Your task to perform on an android device: change timer sound Image 0: 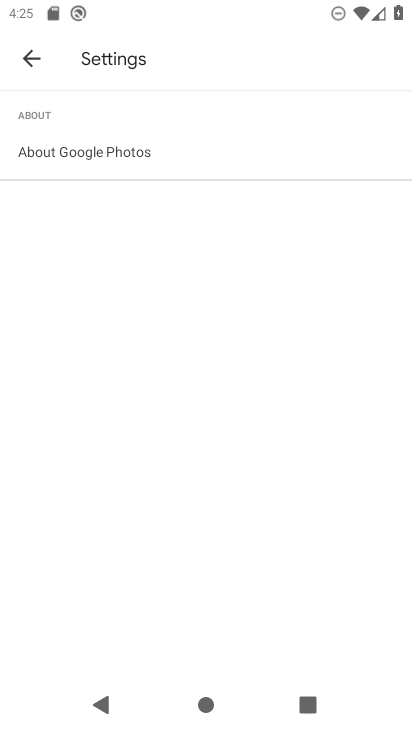
Step 0: press home button
Your task to perform on an android device: change timer sound Image 1: 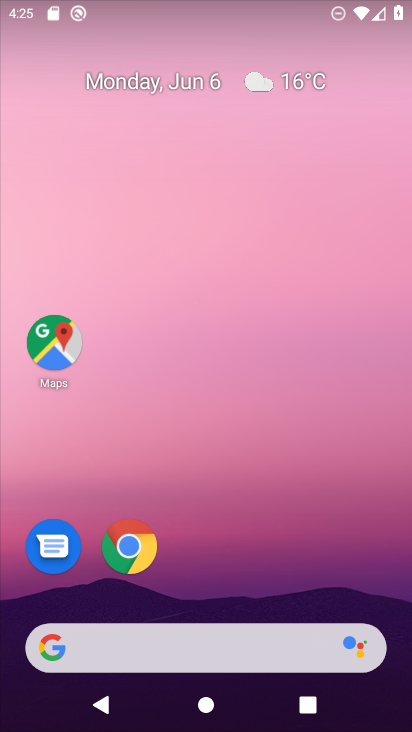
Step 1: drag from (252, 620) to (222, 0)
Your task to perform on an android device: change timer sound Image 2: 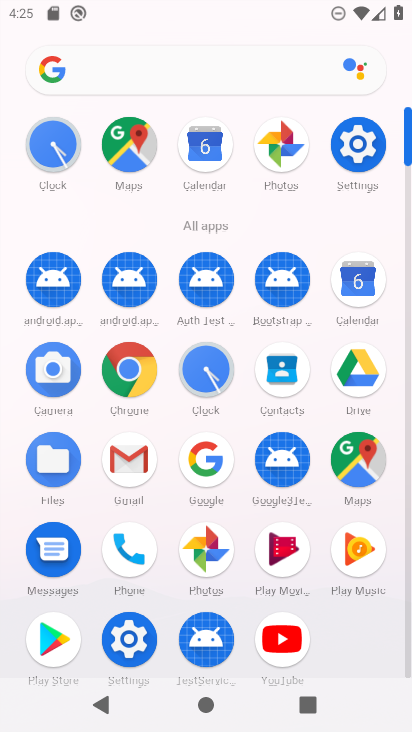
Step 2: click (338, 140)
Your task to perform on an android device: change timer sound Image 3: 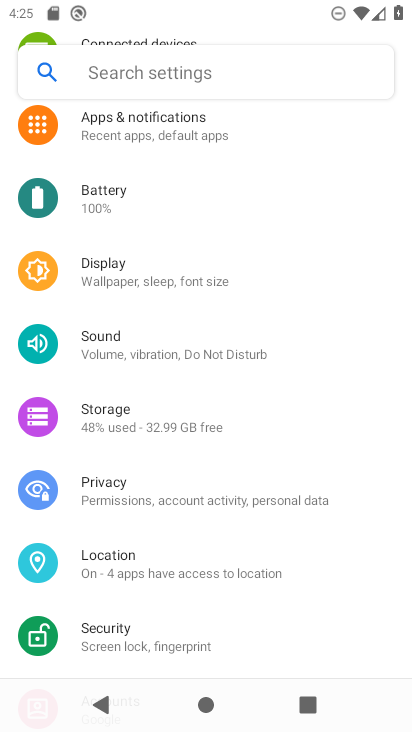
Step 3: press home button
Your task to perform on an android device: change timer sound Image 4: 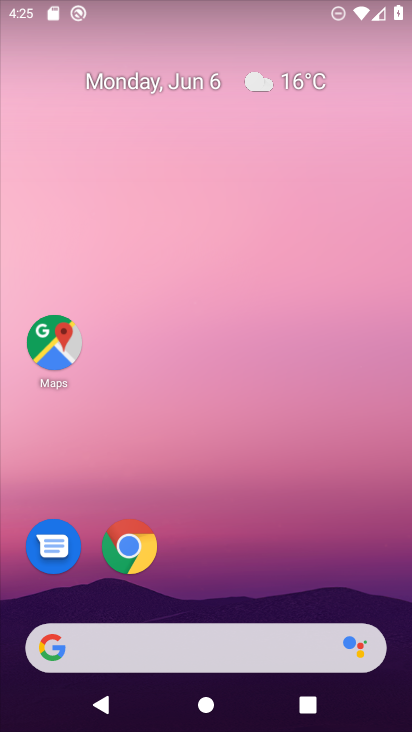
Step 4: drag from (242, 622) to (222, 0)
Your task to perform on an android device: change timer sound Image 5: 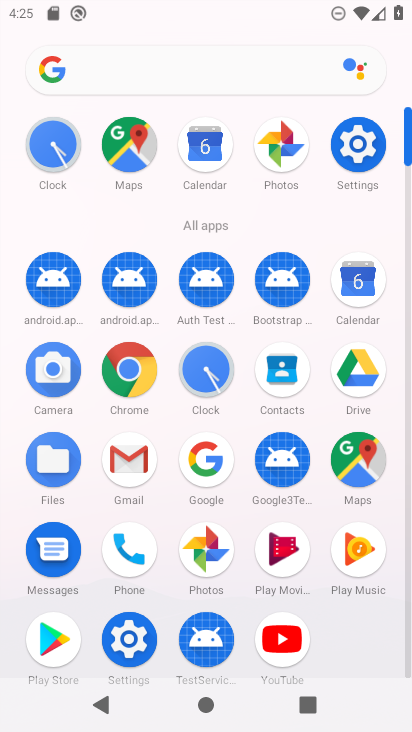
Step 5: click (204, 380)
Your task to perform on an android device: change timer sound Image 6: 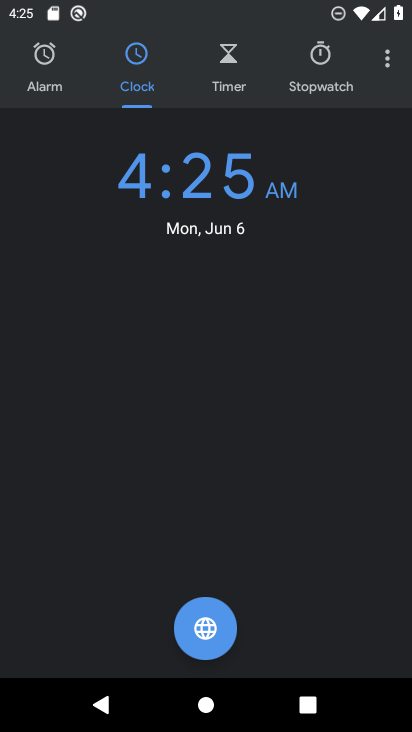
Step 6: click (381, 64)
Your task to perform on an android device: change timer sound Image 7: 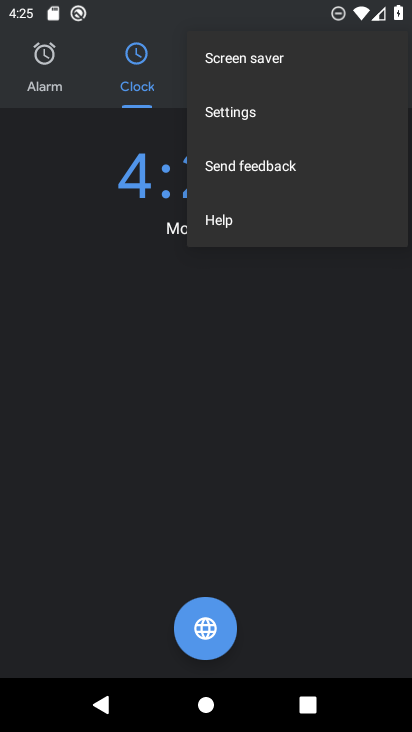
Step 7: click (268, 103)
Your task to perform on an android device: change timer sound Image 8: 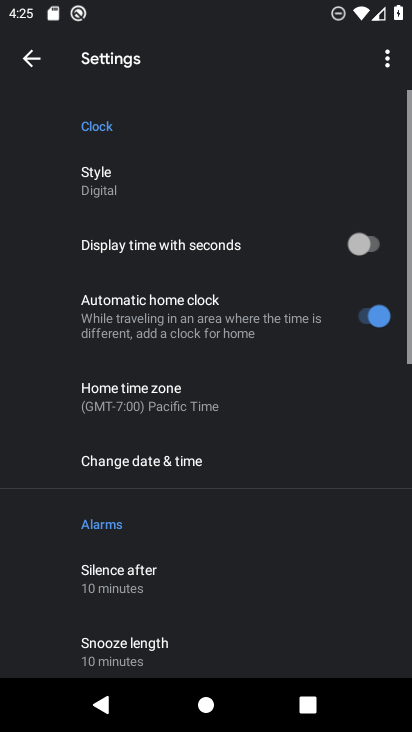
Step 8: drag from (228, 551) to (223, 204)
Your task to perform on an android device: change timer sound Image 9: 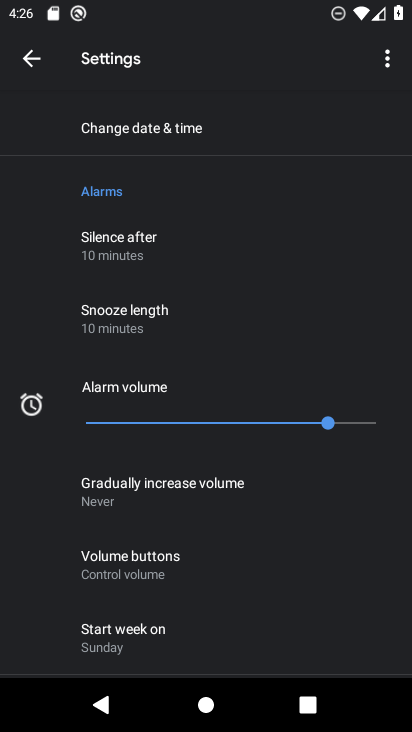
Step 9: drag from (242, 567) to (205, 120)
Your task to perform on an android device: change timer sound Image 10: 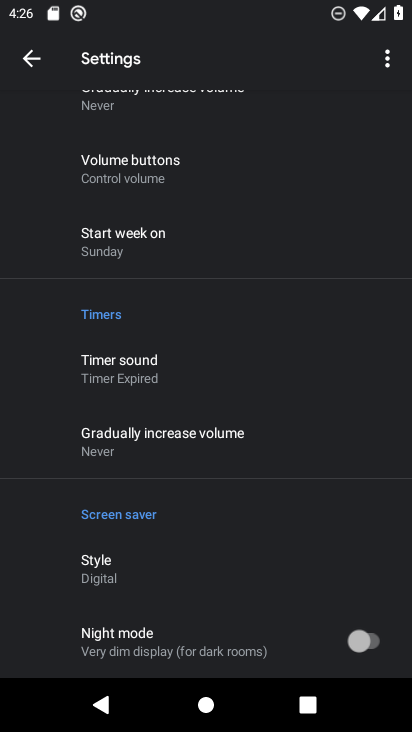
Step 10: click (167, 376)
Your task to perform on an android device: change timer sound Image 11: 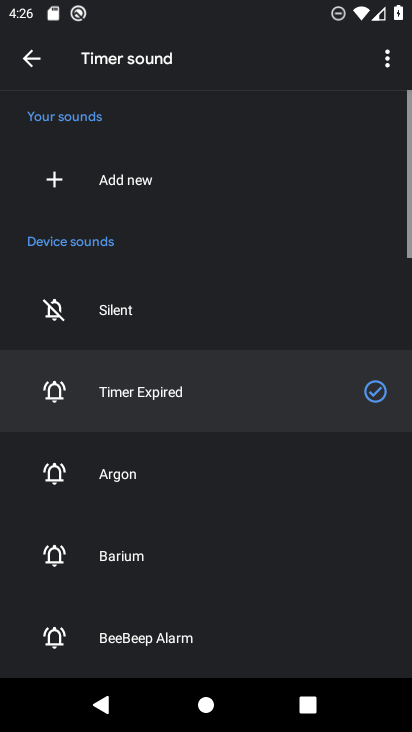
Step 11: click (188, 488)
Your task to perform on an android device: change timer sound Image 12: 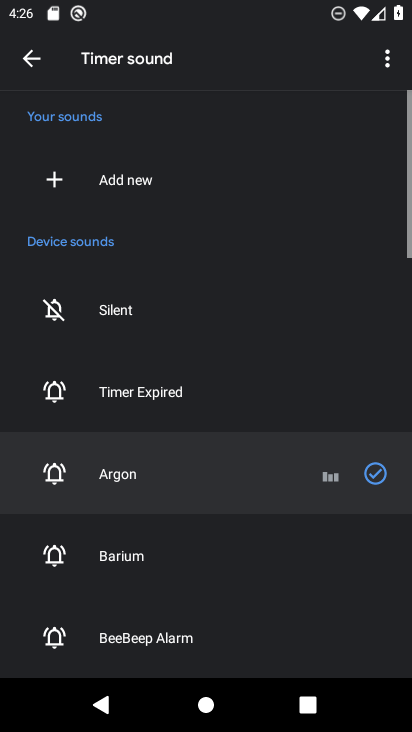
Step 12: task complete